Your task to perform on an android device: Show the shopping cart on costco. Search for asus zenbook on costco, select the first entry, add it to the cart, then select checkout. Image 0: 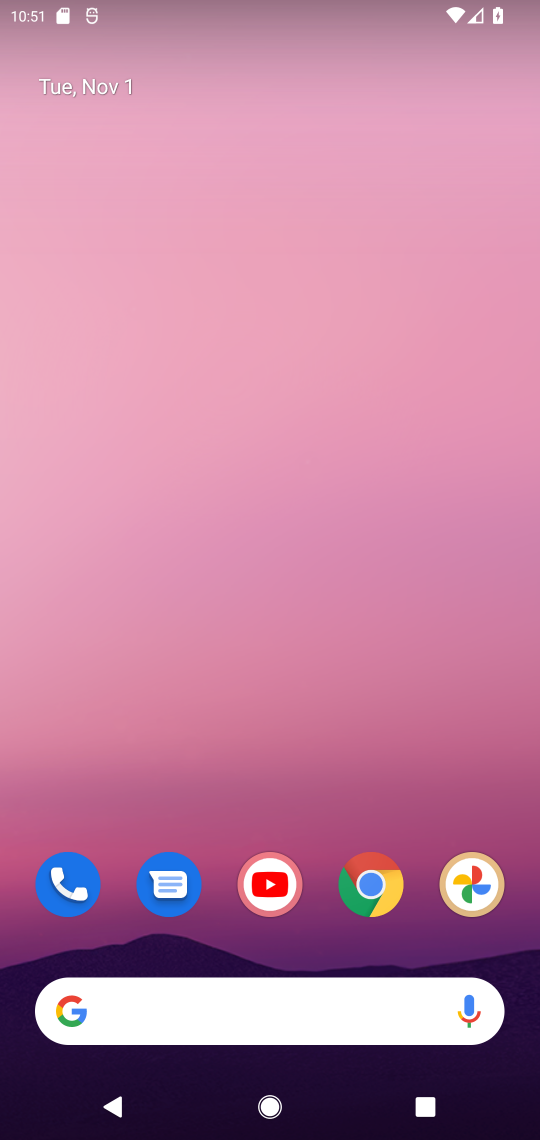
Step 0: click (379, 894)
Your task to perform on an android device: Show the shopping cart on costco. Search for asus zenbook on costco, select the first entry, add it to the cart, then select checkout. Image 1: 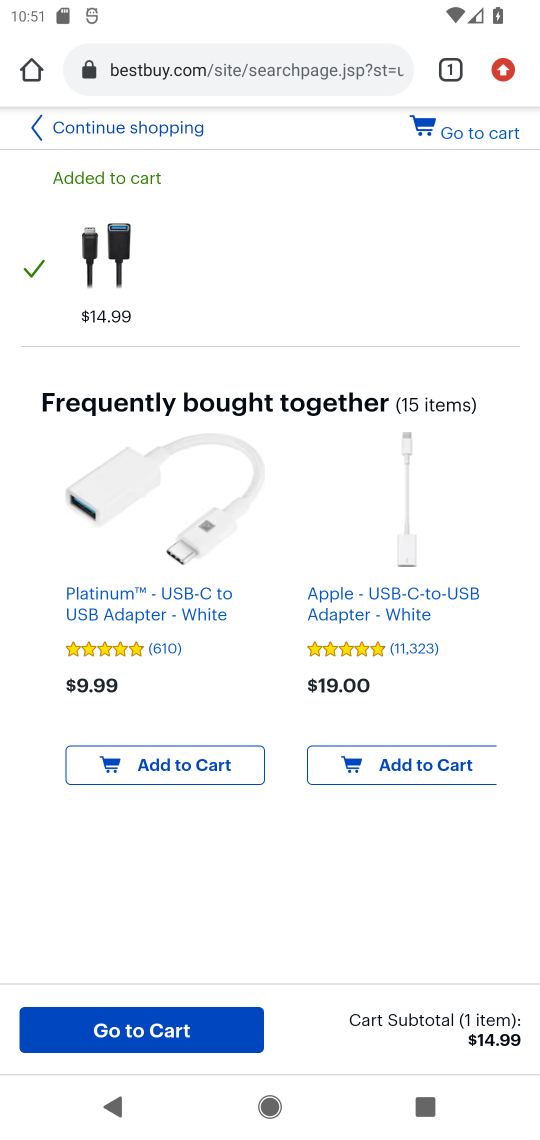
Step 1: click (180, 75)
Your task to perform on an android device: Show the shopping cart on costco. Search for asus zenbook on costco, select the first entry, add it to the cart, then select checkout. Image 2: 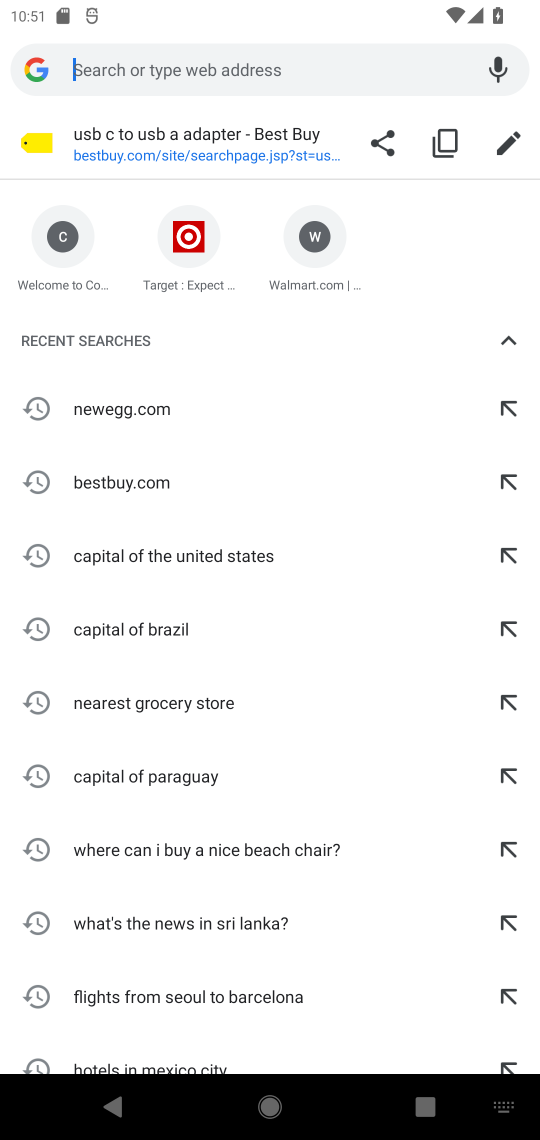
Step 2: type "costco.com"
Your task to perform on an android device: Show the shopping cart on costco. Search for asus zenbook on costco, select the first entry, add it to the cart, then select checkout. Image 3: 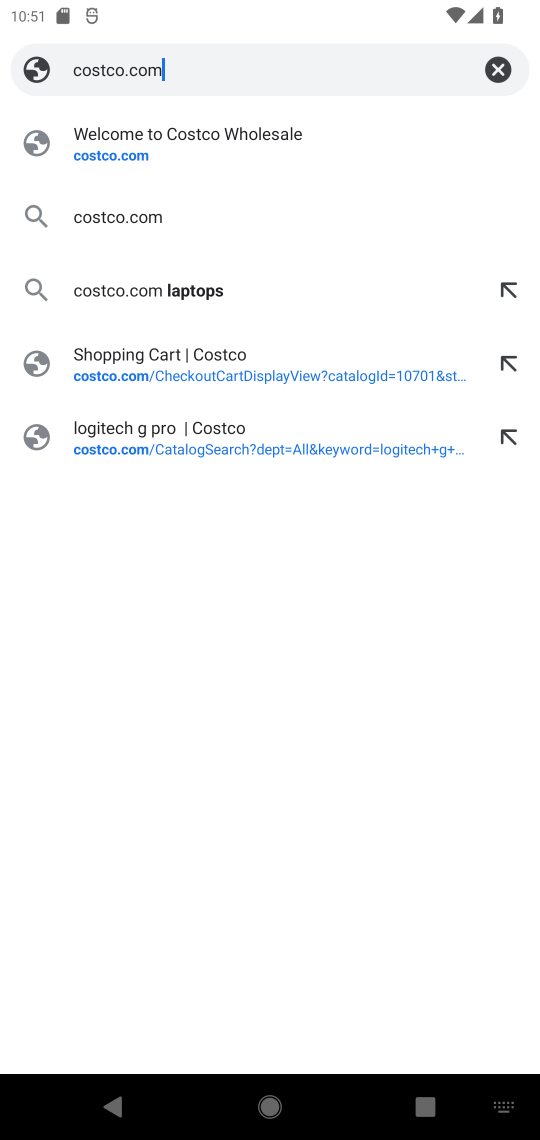
Step 3: click (111, 162)
Your task to perform on an android device: Show the shopping cart on costco. Search for asus zenbook on costco, select the first entry, add it to the cart, then select checkout. Image 4: 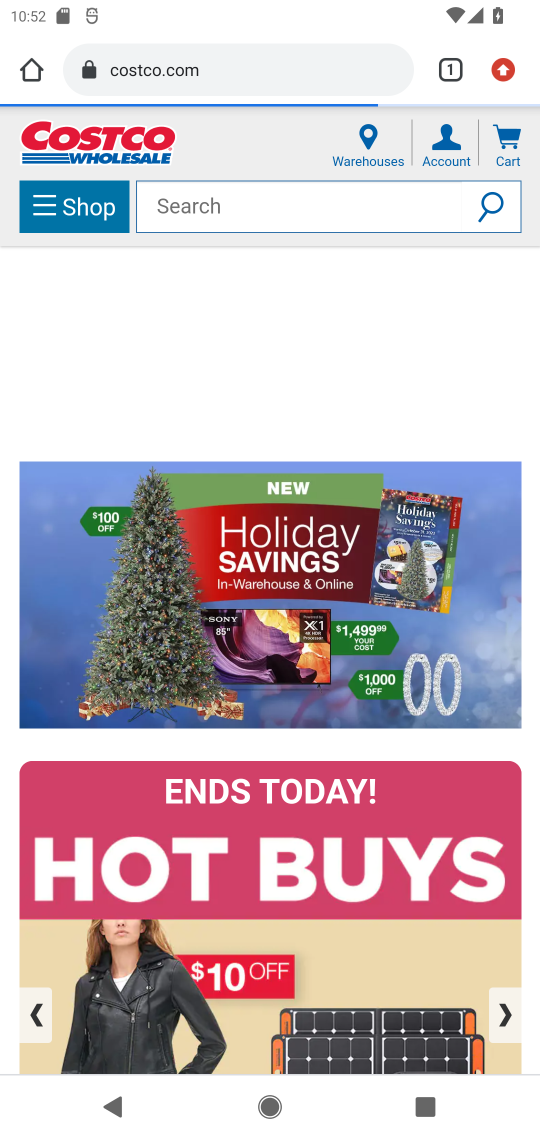
Step 4: click (514, 146)
Your task to perform on an android device: Show the shopping cart on costco. Search for asus zenbook on costco, select the first entry, add it to the cart, then select checkout. Image 5: 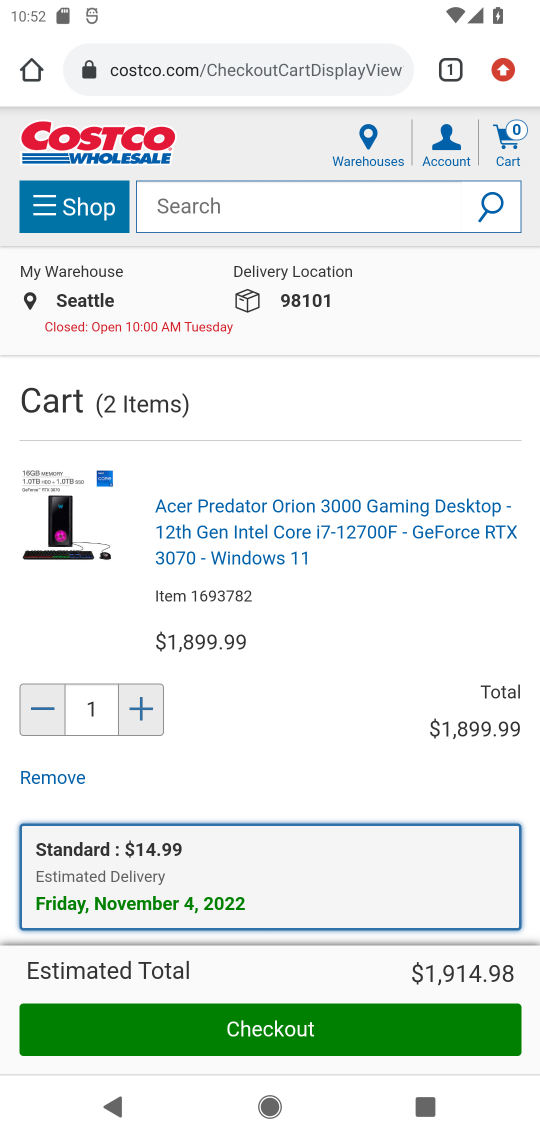
Step 5: click (242, 203)
Your task to perform on an android device: Show the shopping cart on costco. Search for asus zenbook on costco, select the first entry, add it to the cart, then select checkout. Image 6: 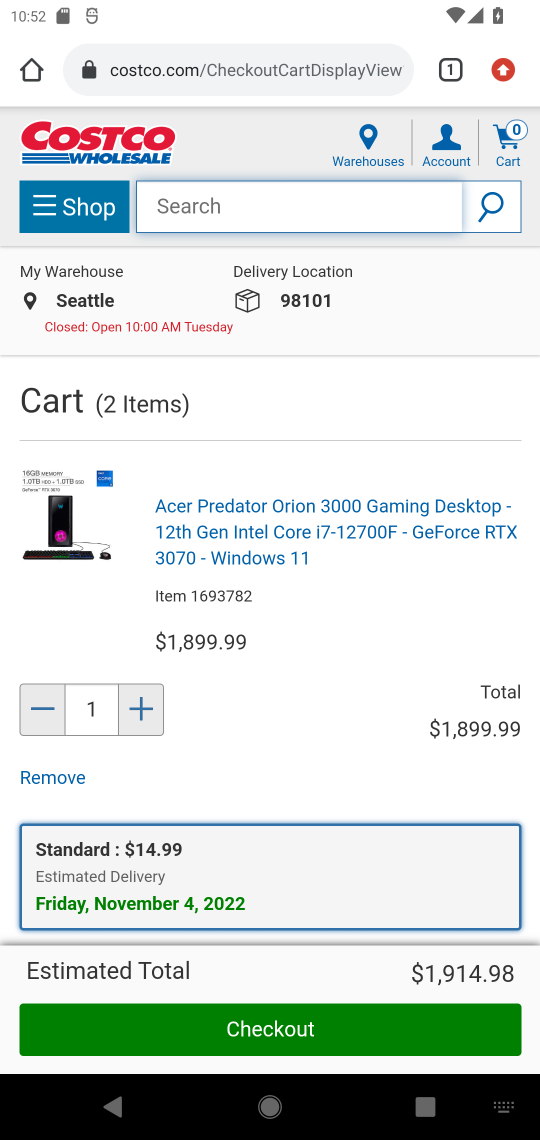
Step 6: type "asus zenbook"
Your task to perform on an android device: Show the shopping cart on costco. Search for asus zenbook on costco, select the first entry, add it to the cart, then select checkout. Image 7: 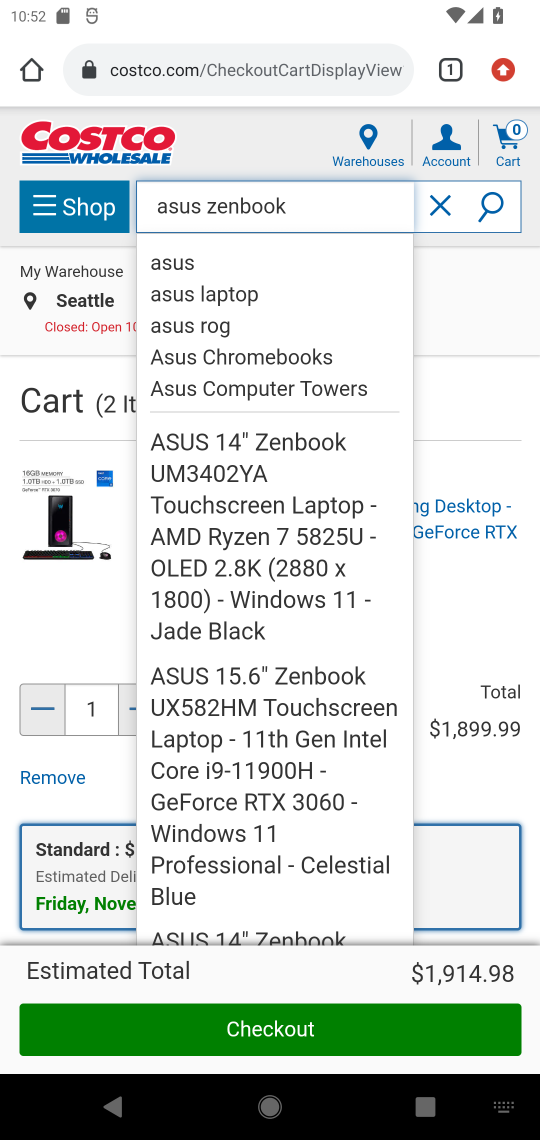
Step 7: click (483, 216)
Your task to perform on an android device: Show the shopping cart on costco. Search for asus zenbook on costco, select the first entry, add it to the cart, then select checkout. Image 8: 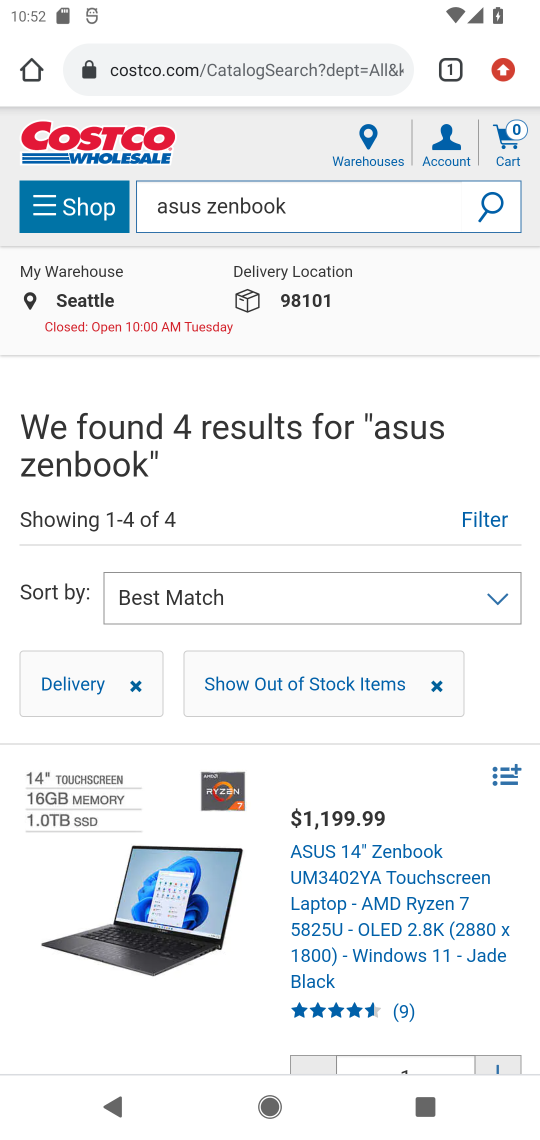
Step 8: click (313, 922)
Your task to perform on an android device: Show the shopping cart on costco. Search for asus zenbook on costco, select the first entry, add it to the cart, then select checkout. Image 9: 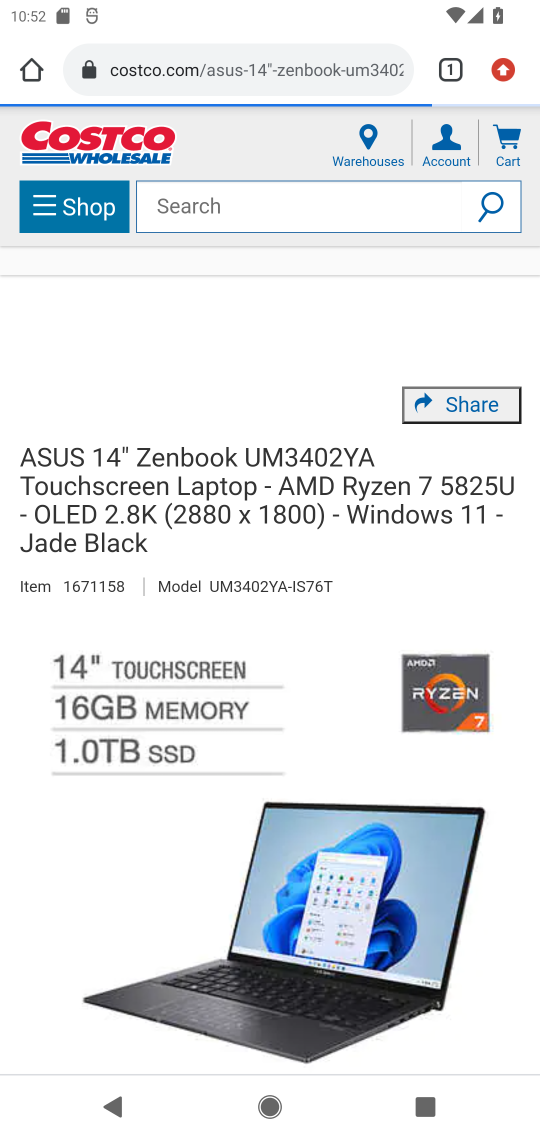
Step 9: drag from (354, 883) to (391, 390)
Your task to perform on an android device: Show the shopping cart on costco. Search for asus zenbook on costco, select the first entry, add it to the cart, then select checkout. Image 10: 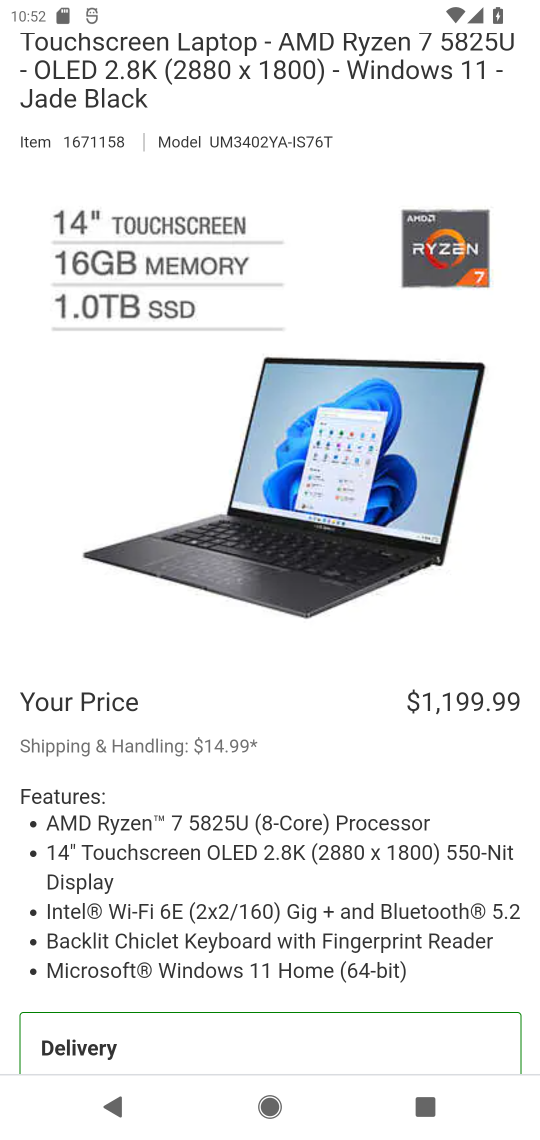
Step 10: drag from (241, 819) to (262, 342)
Your task to perform on an android device: Show the shopping cart on costco. Search for asus zenbook on costco, select the first entry, add it to the cart, then select checkout. Image 11: 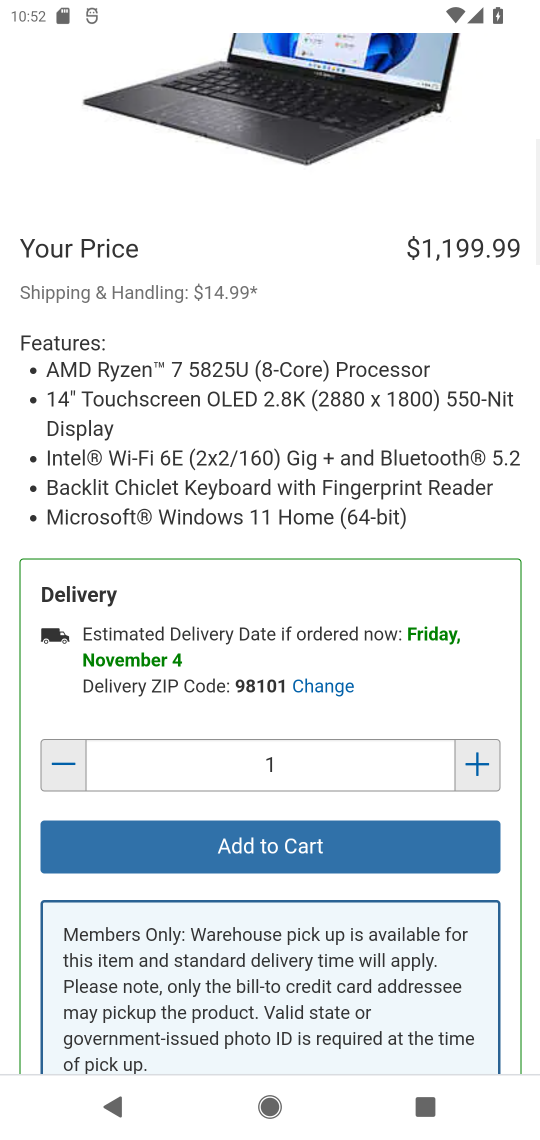
Step 11: click (249, 849)
Your task to perform on an android device: Show the shopping cart on costco. Search for asus zenbook on costco, select the first entry, add it to the cart, then select checkout. Image 12: 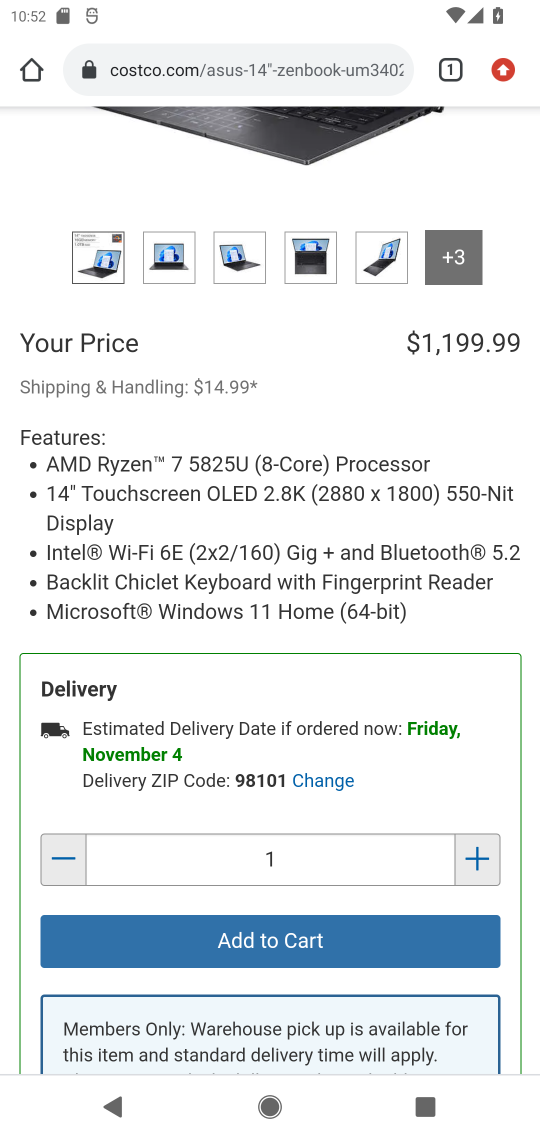
Step 12: click (271, 942)
Your task to perform on an android device: Show the shopping cart on costco. Search for asus zenbook on costco, select the first entry, add it to the cart, then select checkout. Image 13: 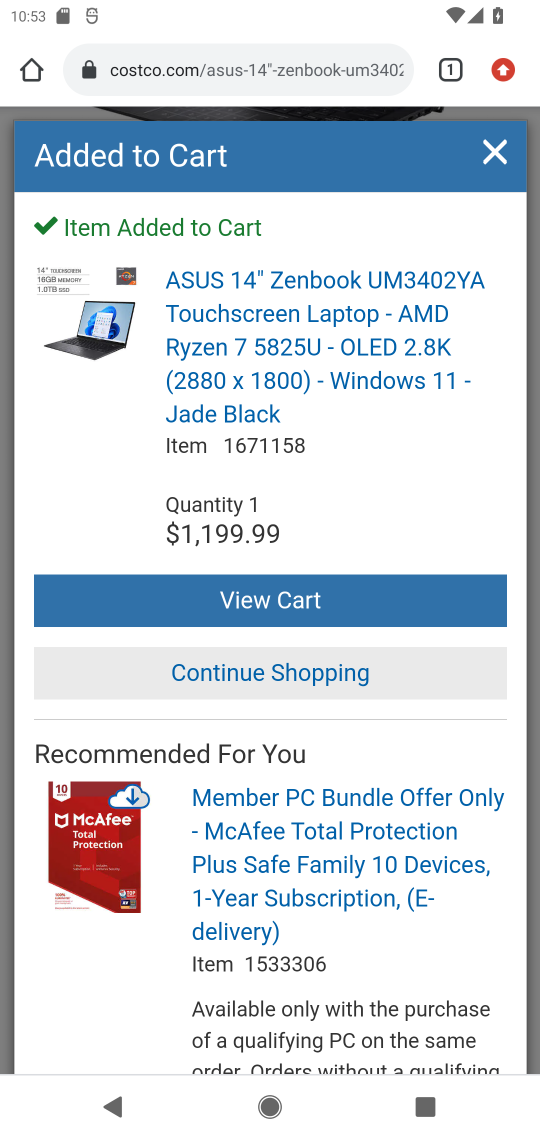
Step 13: click (275, 601)
Your task to perform on an android device: Show the shopping cart on costco. Search for asus zenbook on costco, select the first entry, add it to the cart, then select checkout. Image 14: 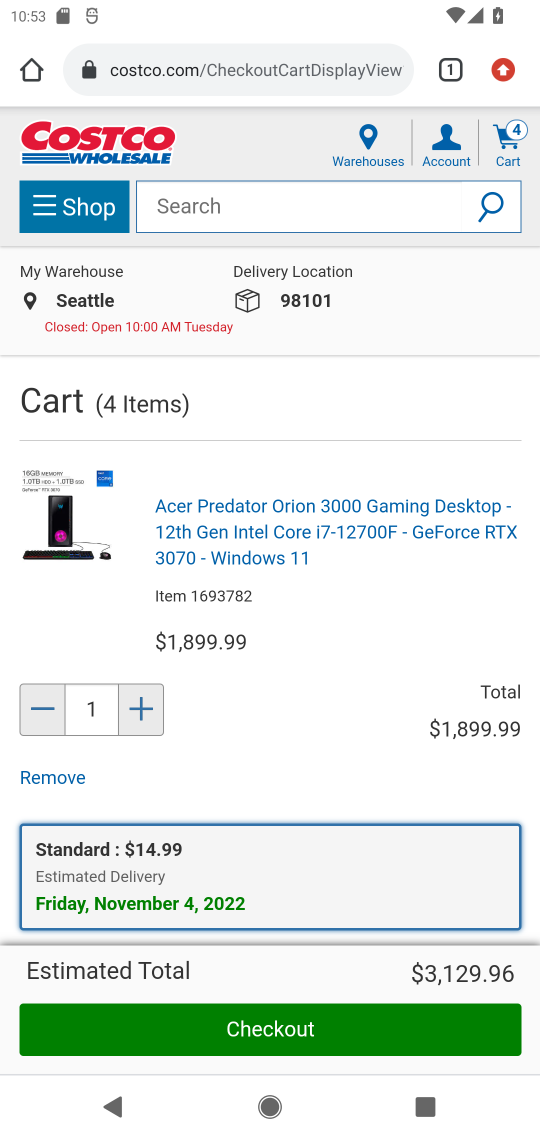
Step 14: click (286, 1033)
Your task to perform on an android device: Show the shopping cart on costco. Search for asus zenbook on costco, select the first entry, add it to the cart, then select checkout. Image 15: 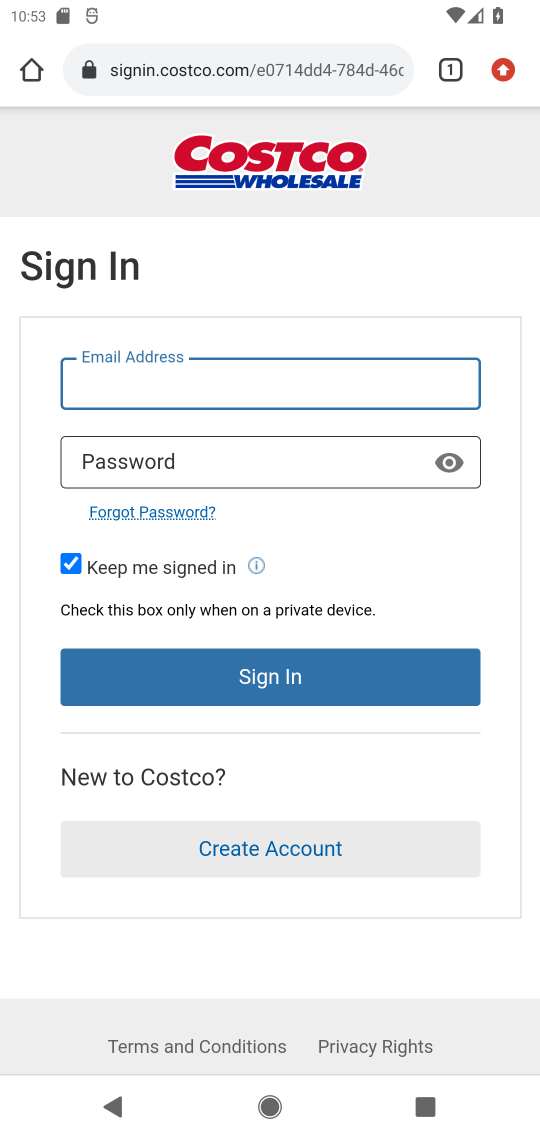
Step 15: task complete